Your task to perform on an android device: Open location settings Image 0: 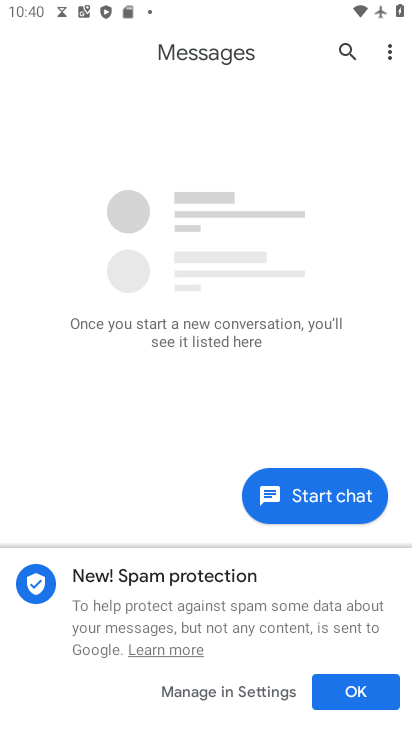
Step 0: press back button
Your task to perform on an android device: Open location settings Image 1: 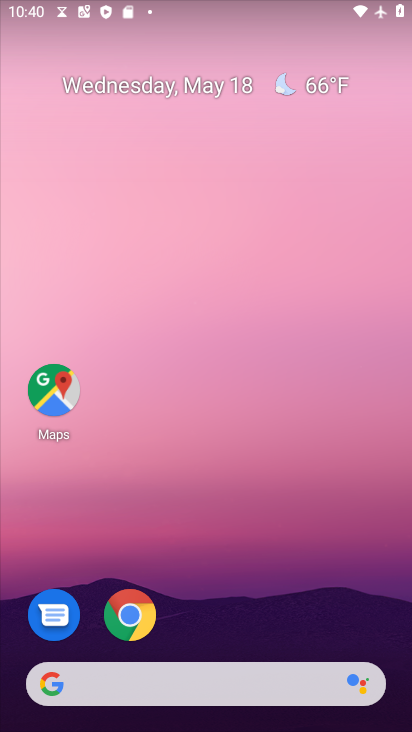
Step 1: drag from (214, 516) to (185, 43)
Your task to perform on an android device: Open location settings Image 2: 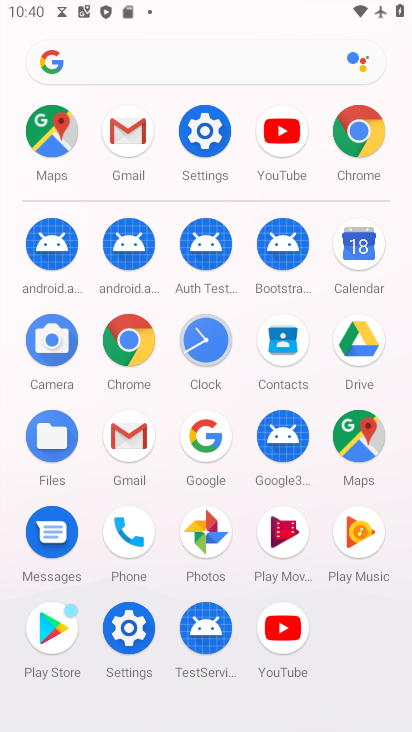
Step 2: click (132, 623)
Your task to perform on an android device: Open location settings Image 3: 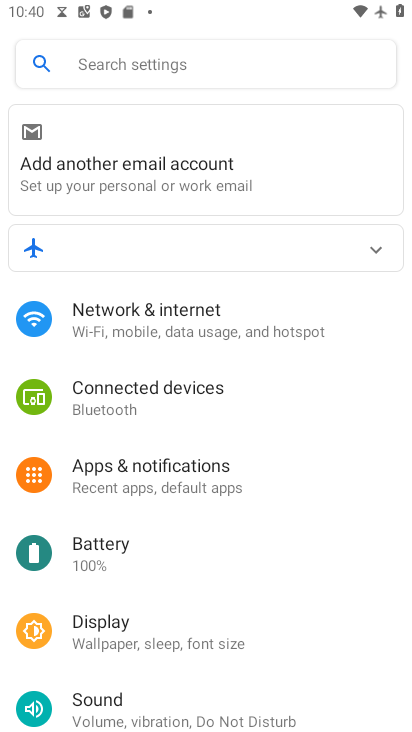
Step 3: drag from (246, 588) to (299, 136)
Your task to perform on an android device: Open location settings Image 4: 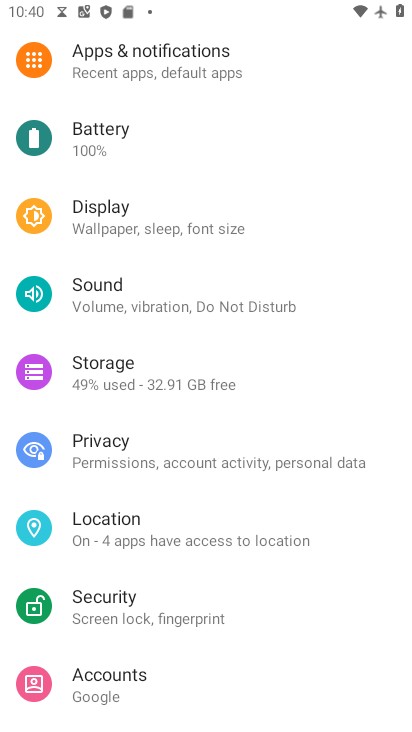
Step 4: click (136, 522)
Your task to perform on an android device: Open location settings Image 5: 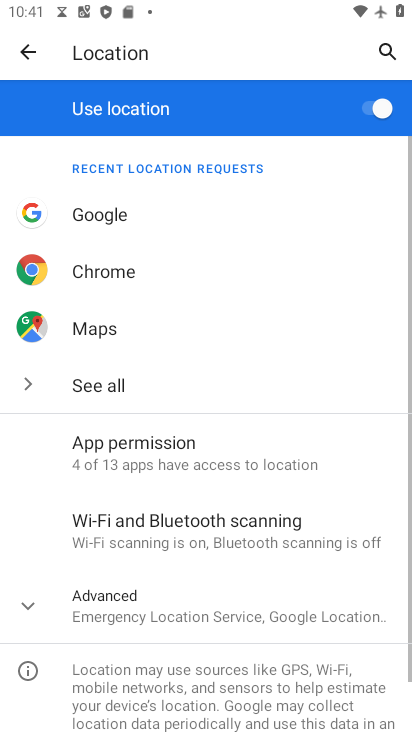
Step 5: click (26, 604)
Your task to perform on an android device: Open location settings Image 6: 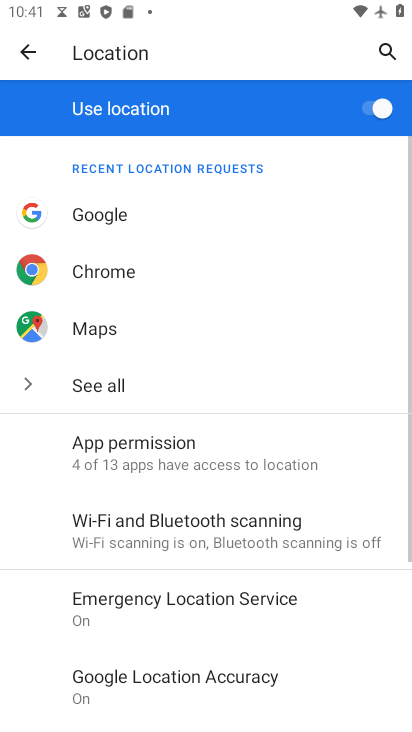
Step 6: task complete